Your task to perform on an android device: Go to Google maps Image 0: 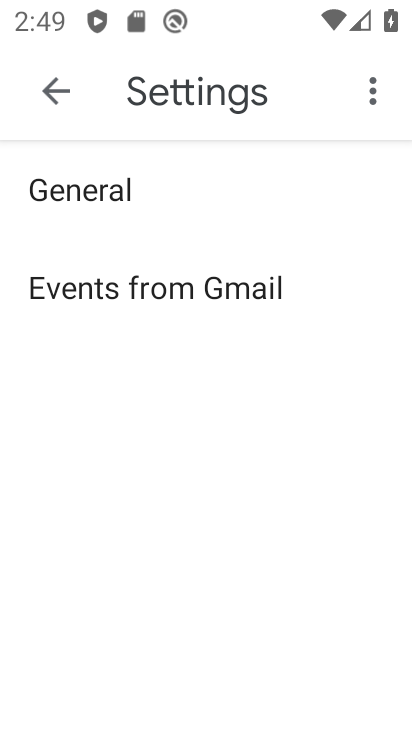
Step 0: press home button
Your task to perform on an android device: Go to Google maps Image 1: 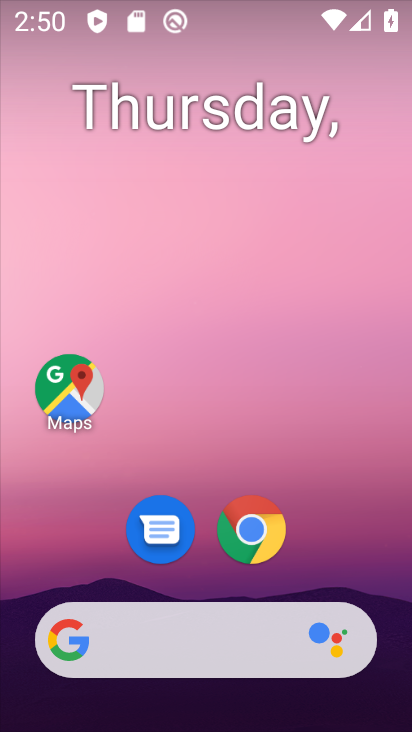
Step 1: click (67, 390)
Your task to perform on an android device: Go to Google maps Image 2: 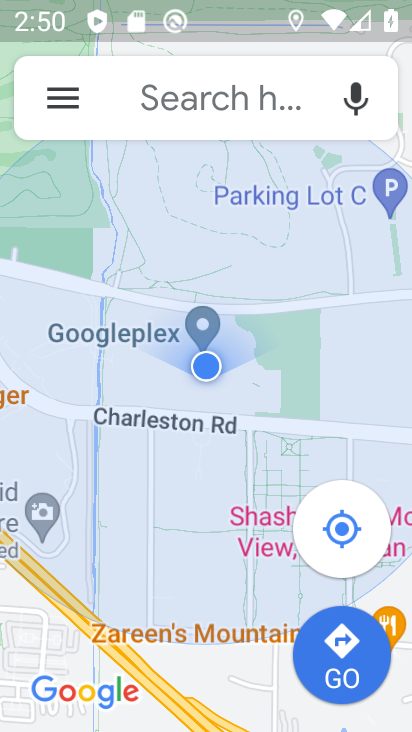
Step 2: task complete